Your task to perform on an android device: turn pop-ups on in chrome Image 0: 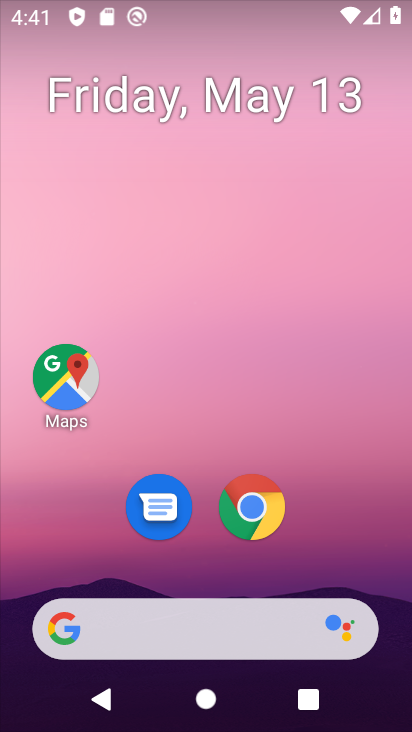
Step 0: click (271, 505)
Your task to perform on an android device: turn pop-ups on in chrome Image 1: 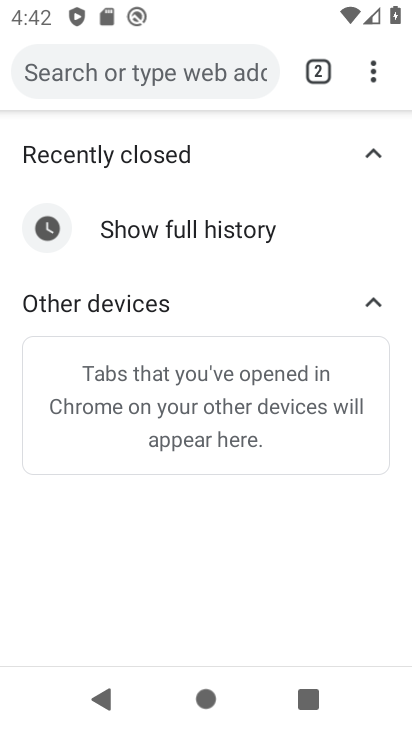
Step 1: click (363, 70)
Your task to perform on an android device: turn pop-ups on in chrome Image 2: 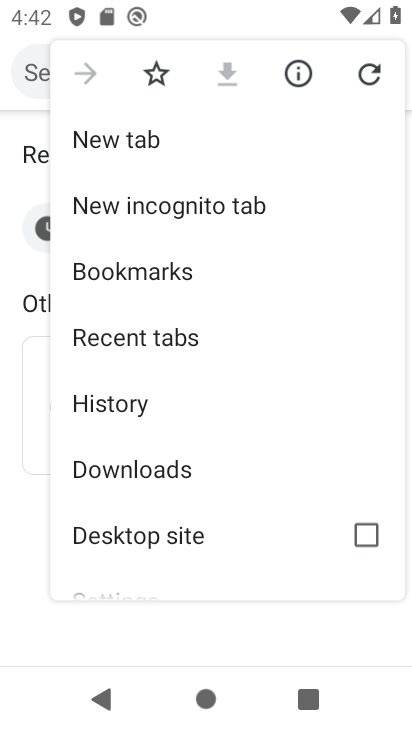
Step 2: drag from (213, 485) to (202, 156)
Your task to perform on an android device: turn pop-ups on in chrome Image 3: 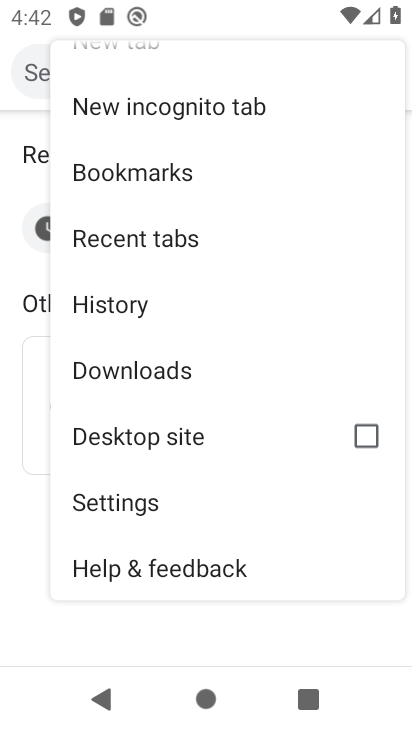
Step 3: click (156, 496)
Your task to perform on an android device: turn pop-ups on in chrome Image 4: 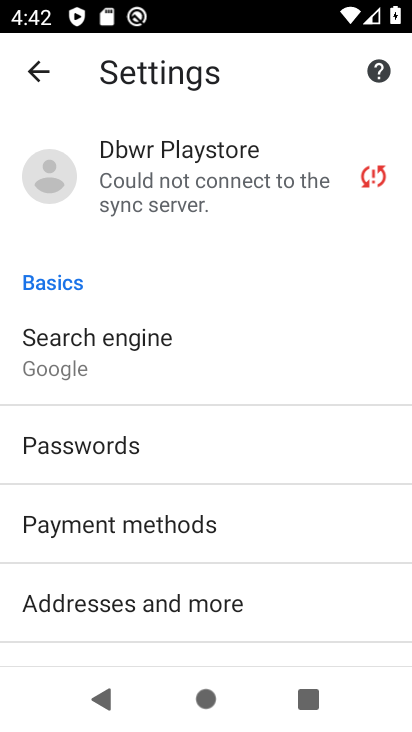
Step 4: drag from (244, 547) to (205, 189)
Your task to perform on an android device: turn pop-ups on in chrome Image 5: 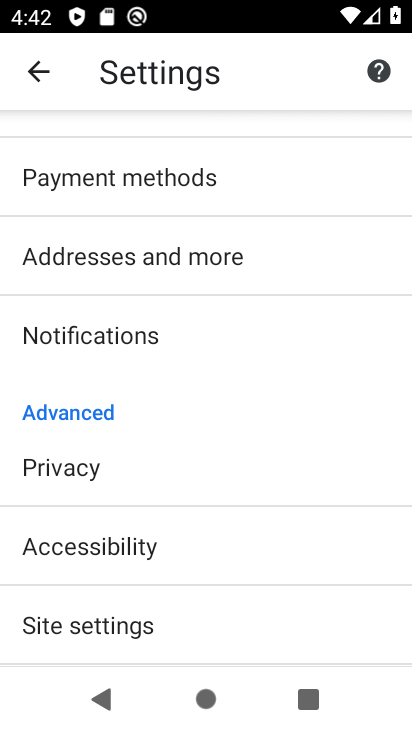
Step 5: click (157, 615)
Your task to perform on an android device: turn pop-ups on in chrome Image 6: 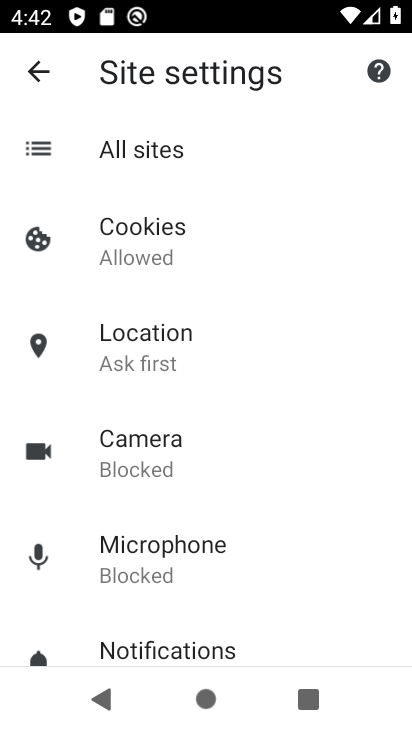
Step 6: drag from (239, 606) to (265, 220)
Your task to perform on an android device: turn pop-ups on in chrome Image 7: 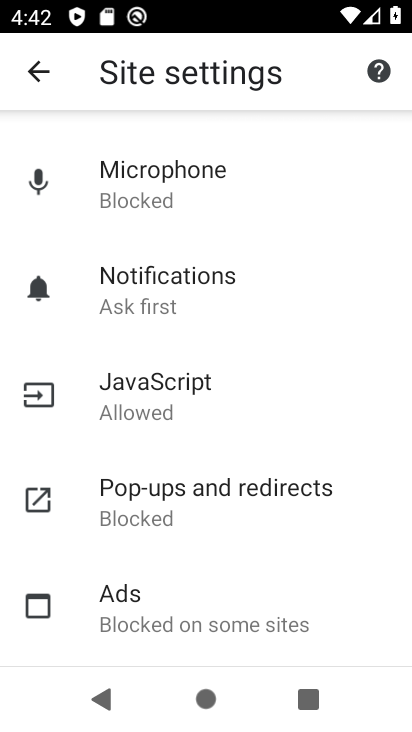
Step 7: click (176, 484)
Your task to perform on an android device: turn pop-ups on in chrome Image 8: 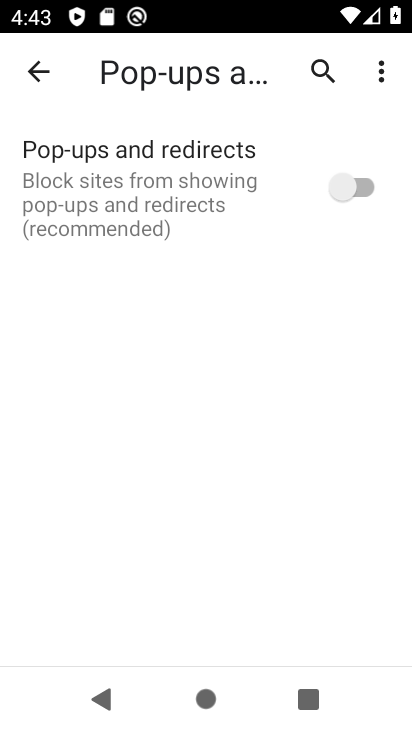
Step 8: click (365, 183)
Your task to perform on an android device: turn pop-ups on in chrome Image 9: 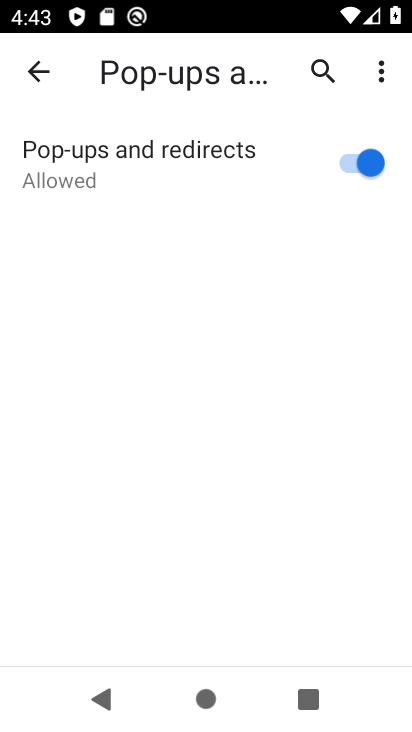
Step 9: task complete